Your task to perform on an android device: toggle improve location accuracy Image 0: 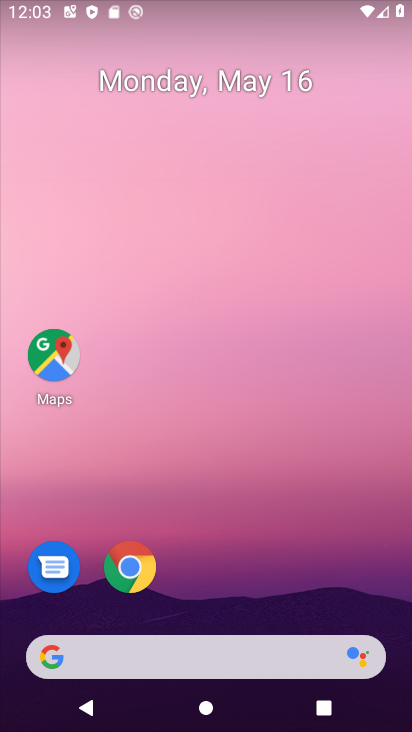
Step 0: drag from (303, 568) to (252, 113)
Your task to perform on an android device: toggle improve location accuracy Image 1: 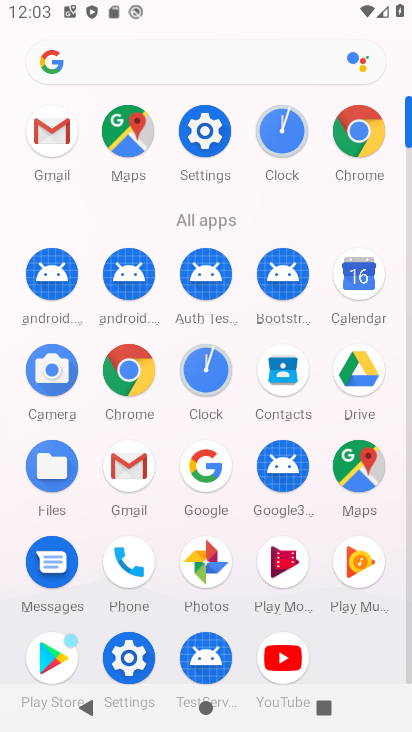
Step 1: click (210, 156)
Your task to perform on an android device: toggle improve location accuracy Image 2: 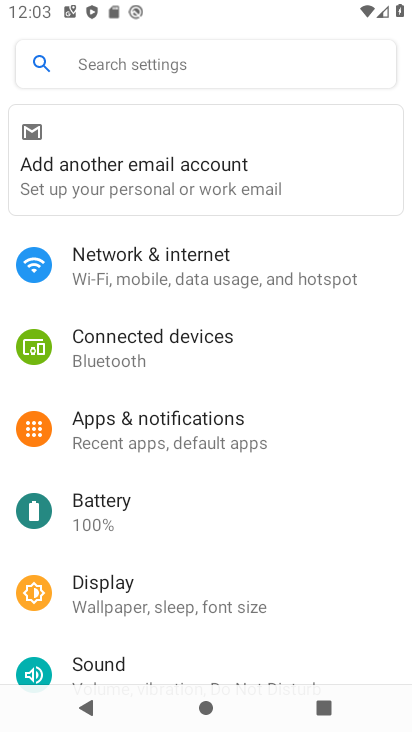
Step 2: drag from (277, 633) to (325, 113)
Your task to perform on an android device: toggle improve location accuracy Image 3: 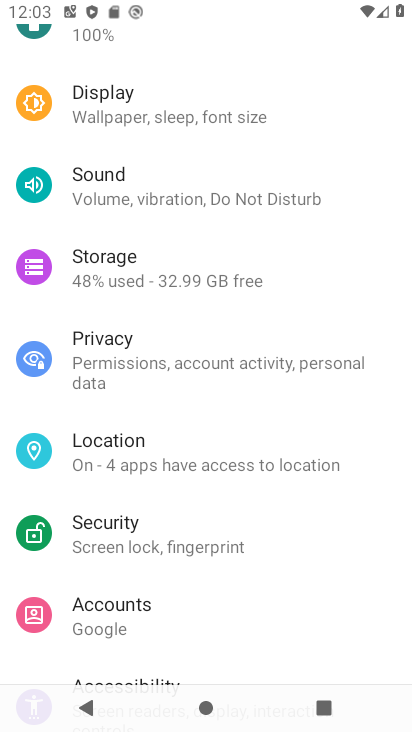
Step 3: drag from (211, 618) to (258, 186)
Your task to perform on an android device: toggle improve location accuracy Image 4: 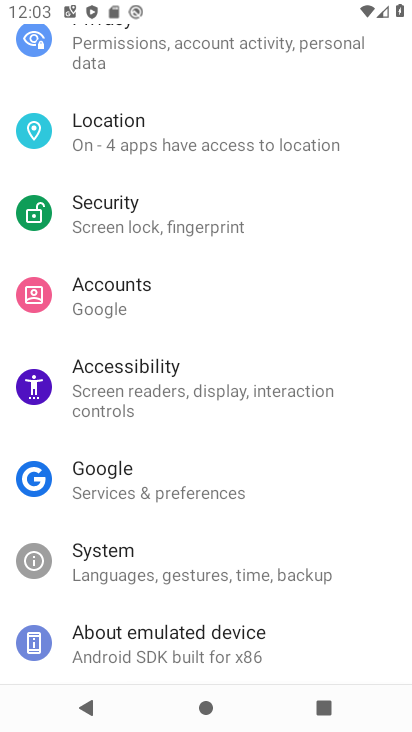
Step 4: drag from (246, 208) to (221, 356)
Your task to perform on an android device: toggle improve location accuracy Image 5: 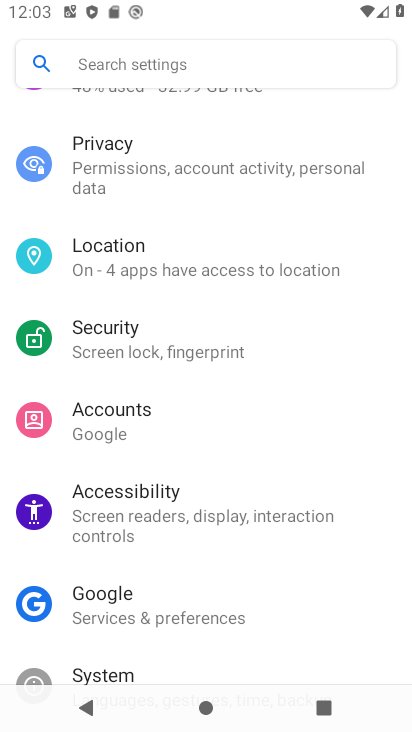
Step 5: drag from (259, 255) to (270, 527)
Your task to perform on an android device: toggle improve location accuracy Image 6: 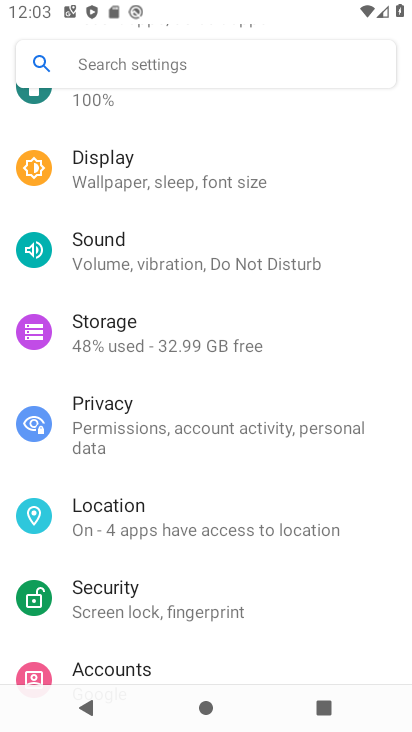
Step 6: click (179, 523)
Your task to perform on an android device: toggle improve location accuracy Image 7: 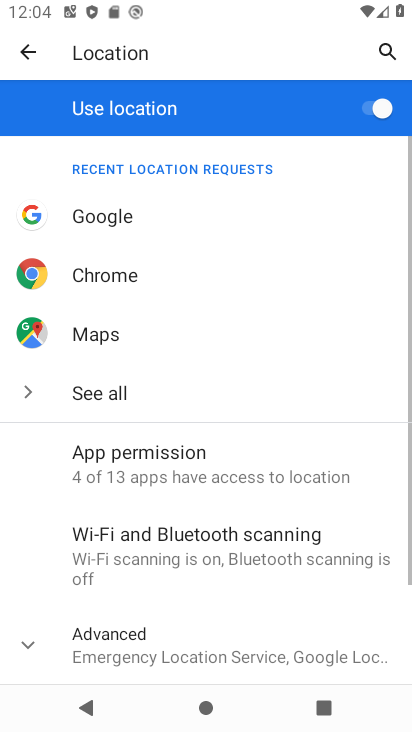
Step 7: click (175, 653)
Your task to perform on an android device: toggle improve location accuracy Image 8: 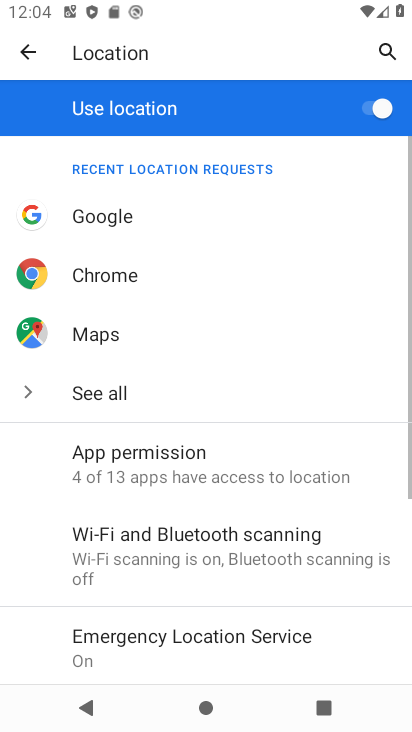
Step 8: drag from (261, 602) to (299, 145)
Your task to perform on an android device: toggle improve location accuracy Image 9: 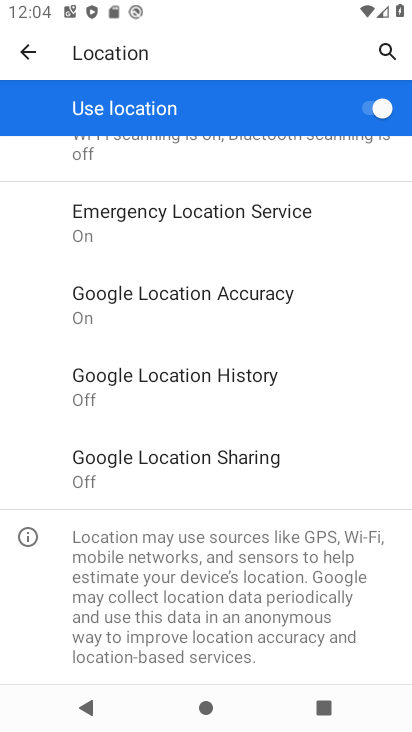
Step 9: click (220, 306)
Your task to perform on an android device: toggle improve location accuracy Image 10: 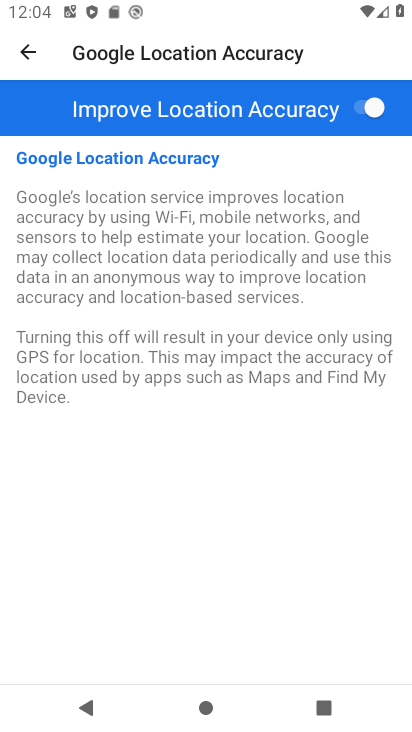
Step 10: click (372, 93)
Your task to perform on an android device: toggle improve location accuracy Image 11: 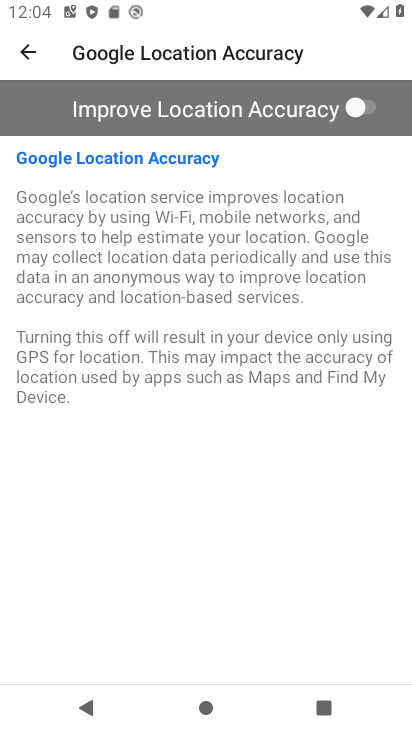
Step 11: task complete